Your task to perform on an android device: Set the phone to "Do not disturb". Image 0: 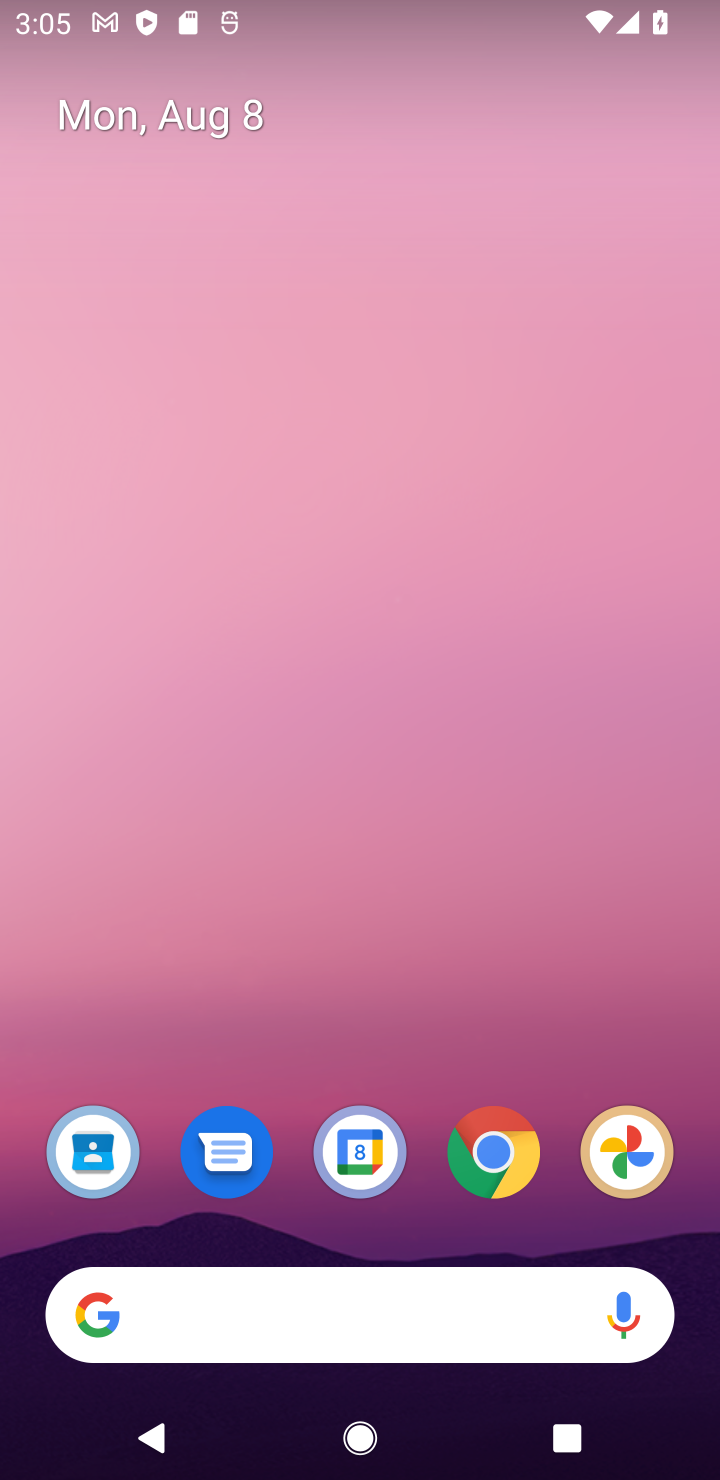
Step 0: drag from (288, 1142) to (512, 7)
Your task to perform on an android device: Set the phone to "Do not disturb". Image 1: 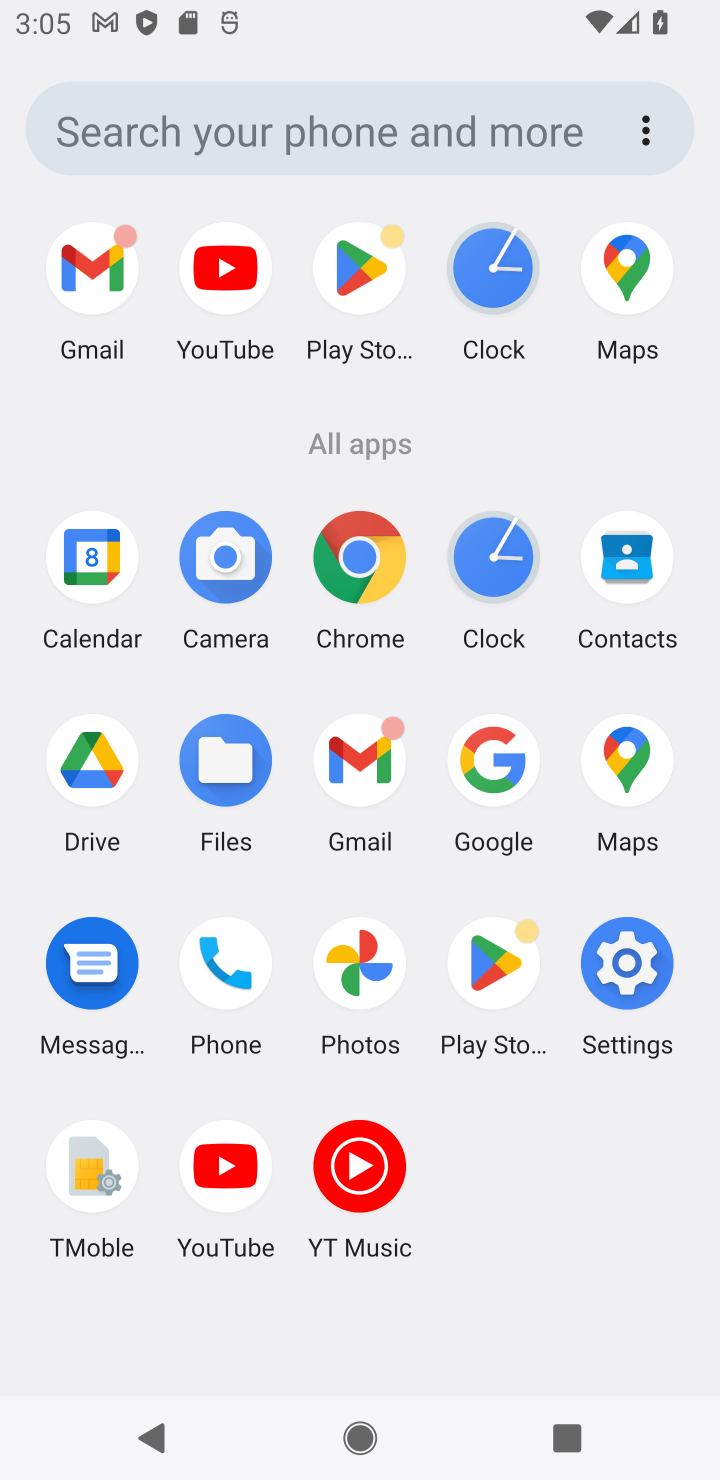
Step 1: click (630, 959)
Your task to perform on an android device: Set the phone to "Do not disturb". Image 2: 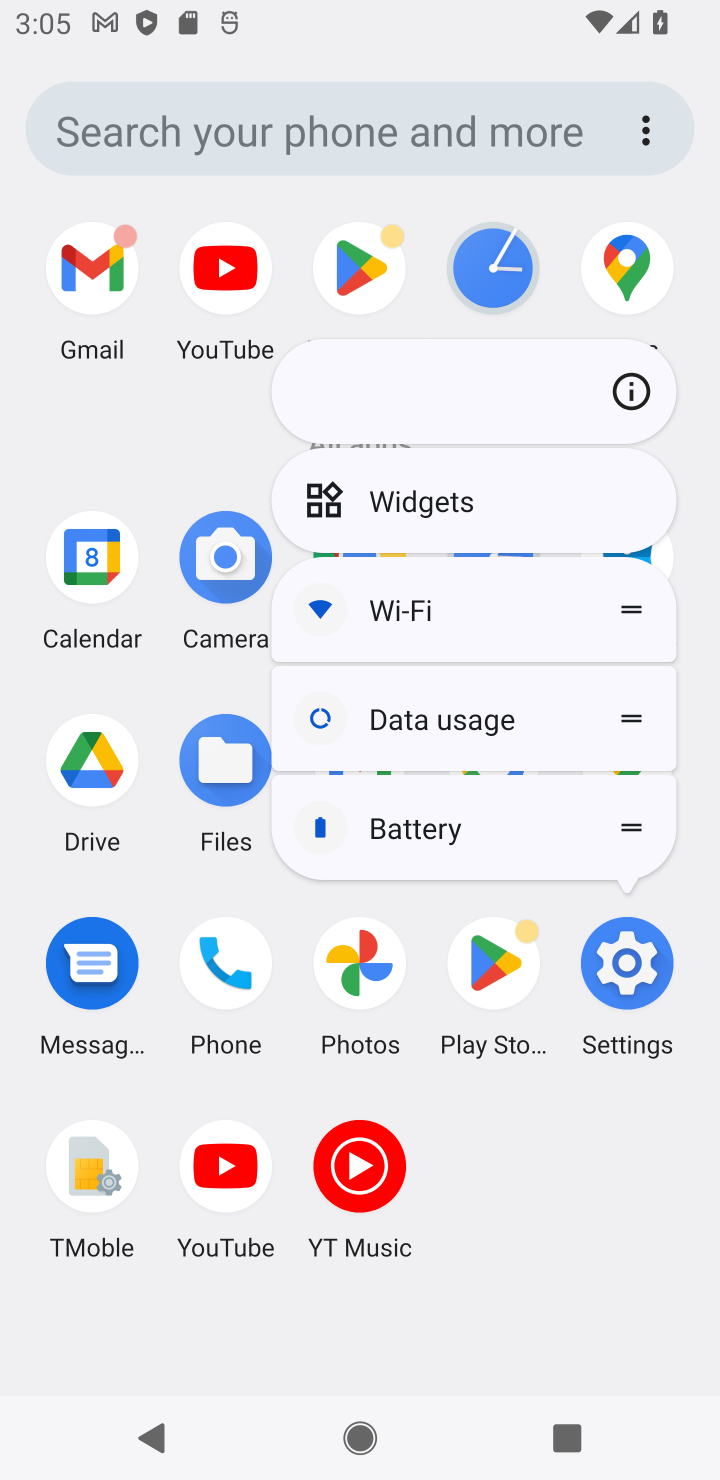
Step 2: click (611, 997)
Your task to perform on an android device: Set the phone to "Do not disturb". Image 3: 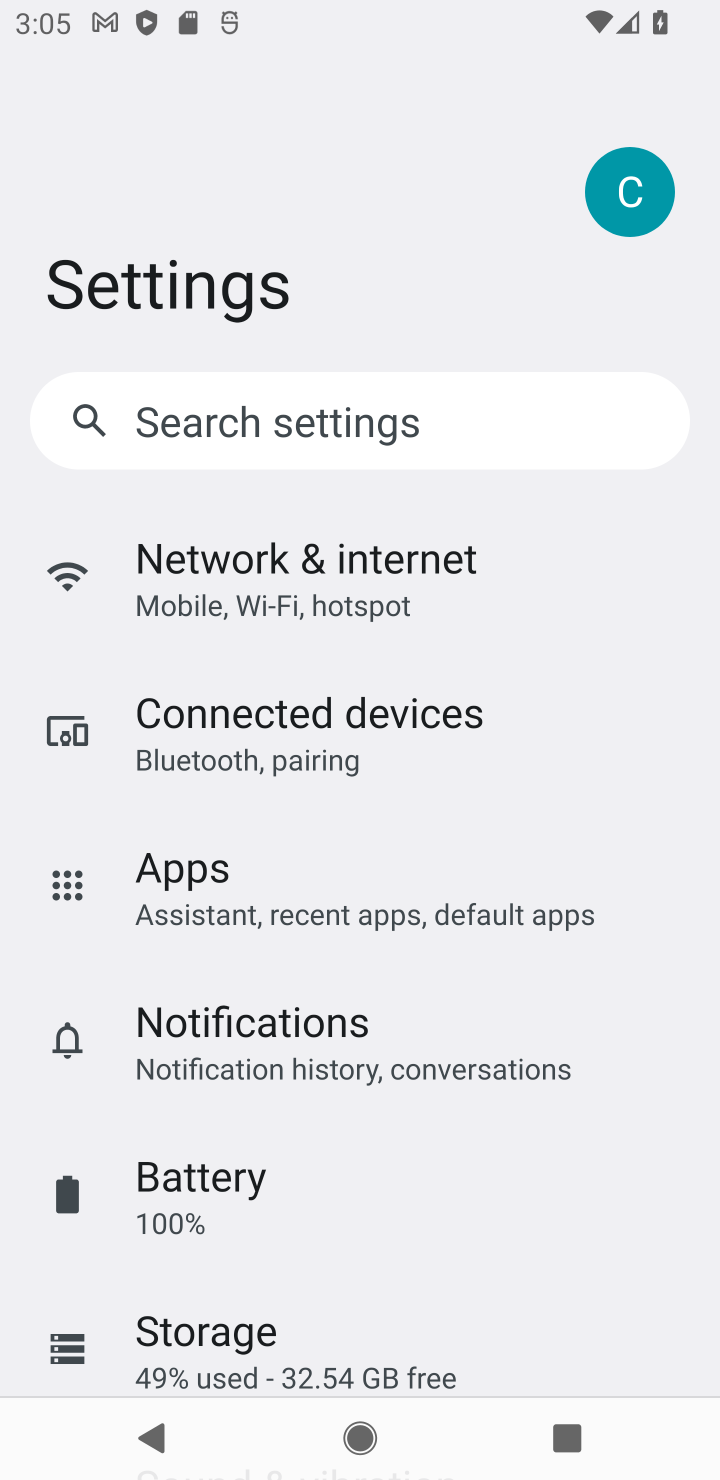
Step 3: drag from (280, 1263) to (270, 546)
Your task to perform on an android device: Set the phone to "Do not disturb". Image 4: 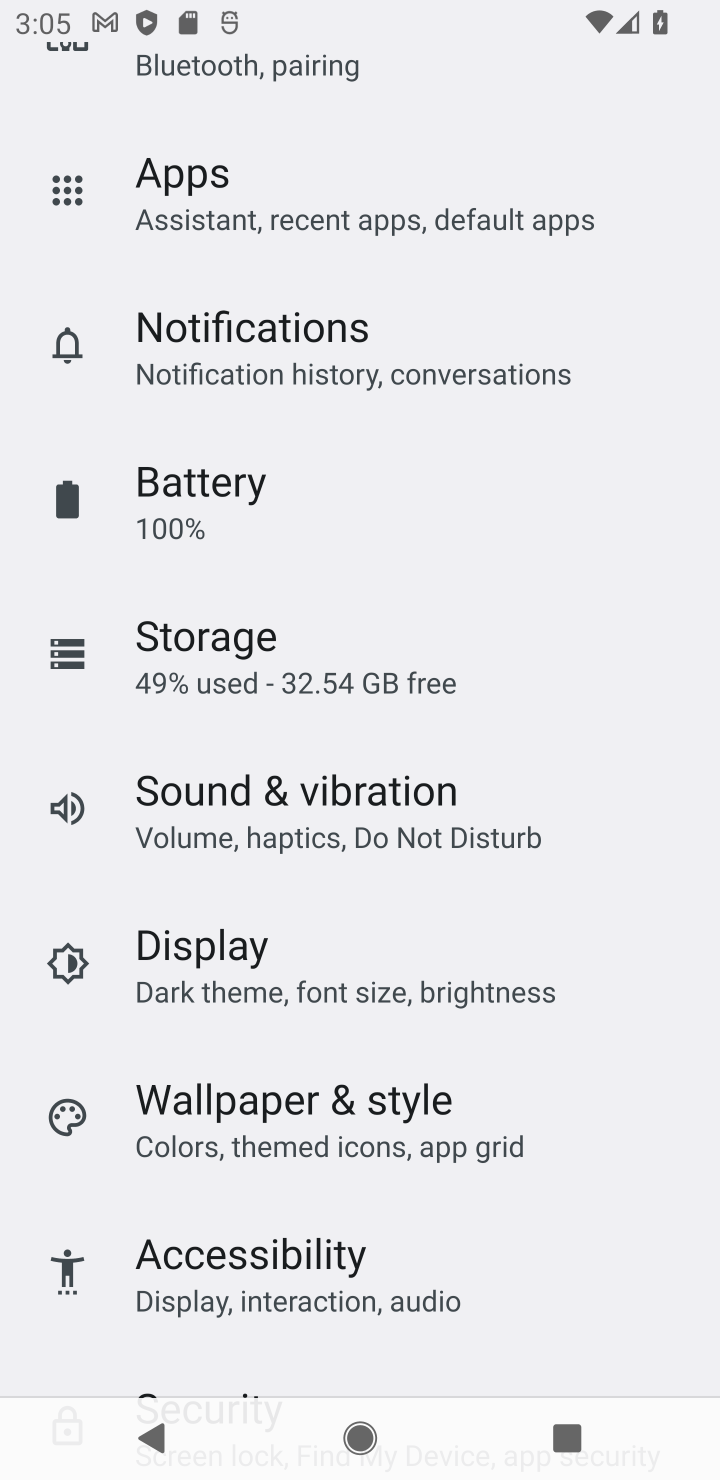
Step 4: click (254, 842)
Your task to perform on an android device: Set the phone to "Do not disturb". Image 5: 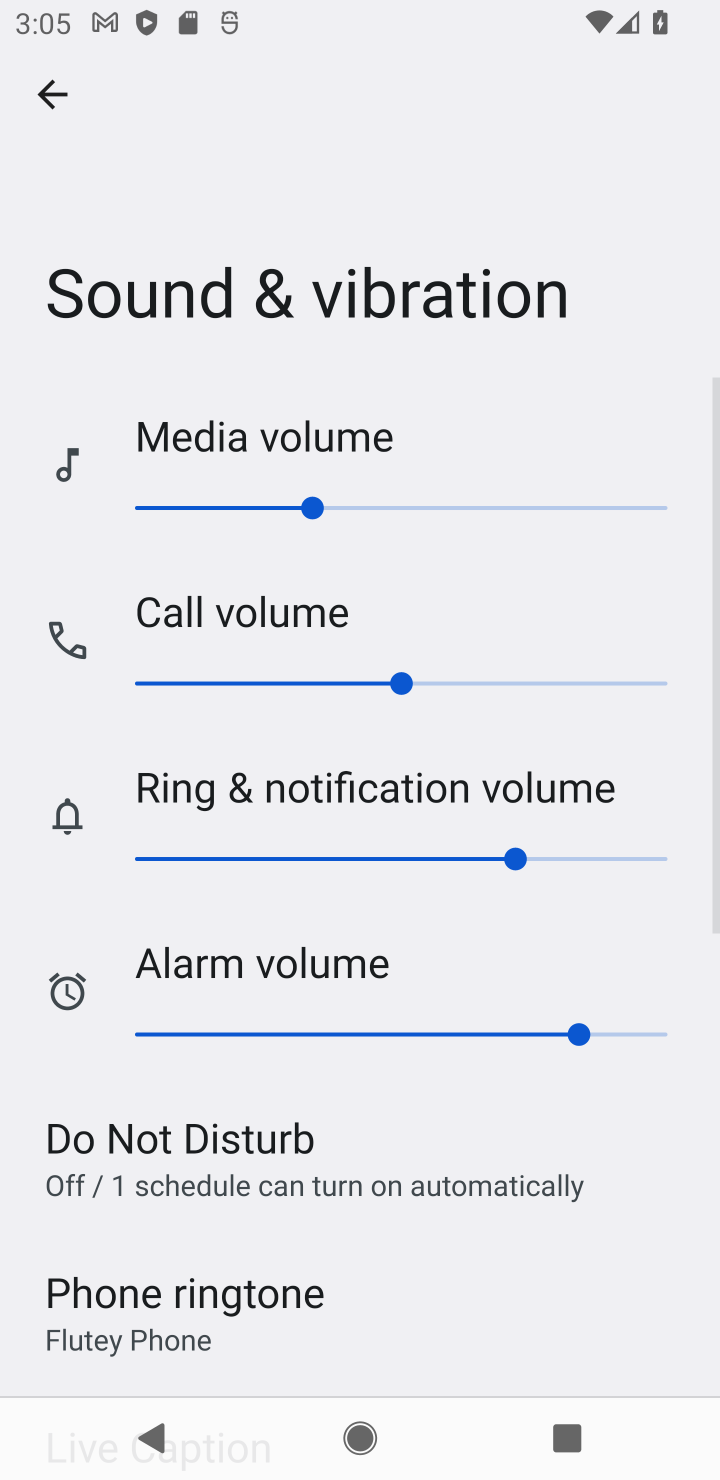
Step 5: drag from (242, 1178) to (249, 815)
Your task to perform on an android device: Set the phone to "Do not disturb". Image 6: 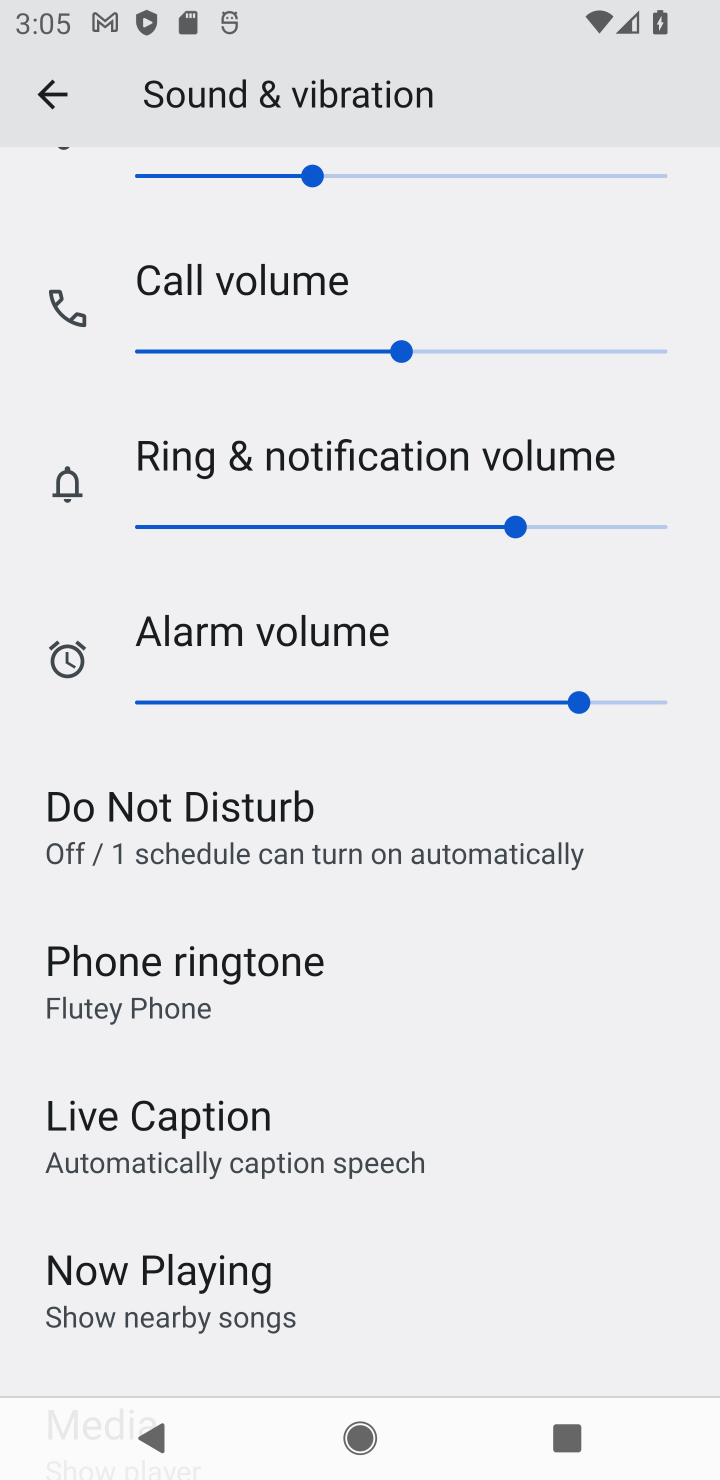
Step 6: click (162, 848)
Your task to perform on an android device: Set the phone to "Do not disturb". Image 7: 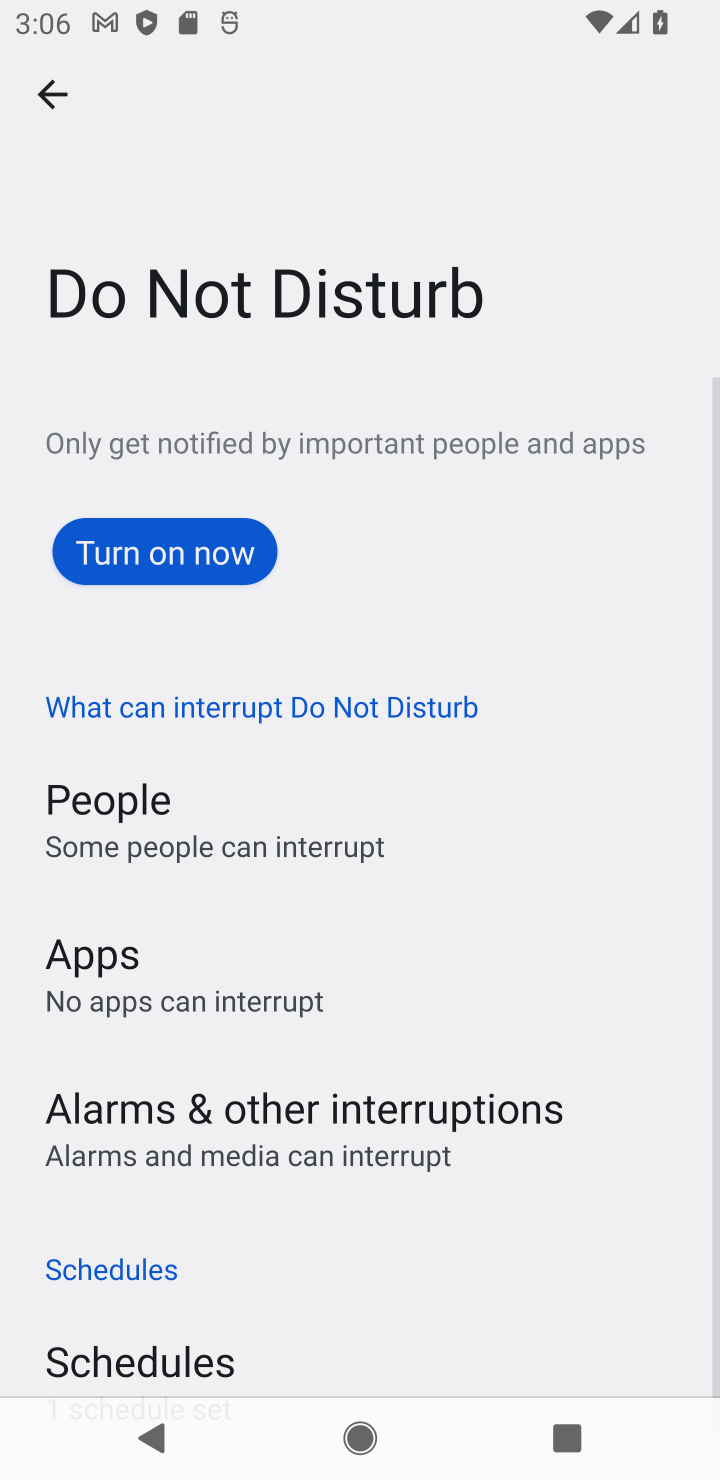
Step 7: click (183, 550)
Your task to perform on an android device: Set the phone to "Do not disturb". Image 8: 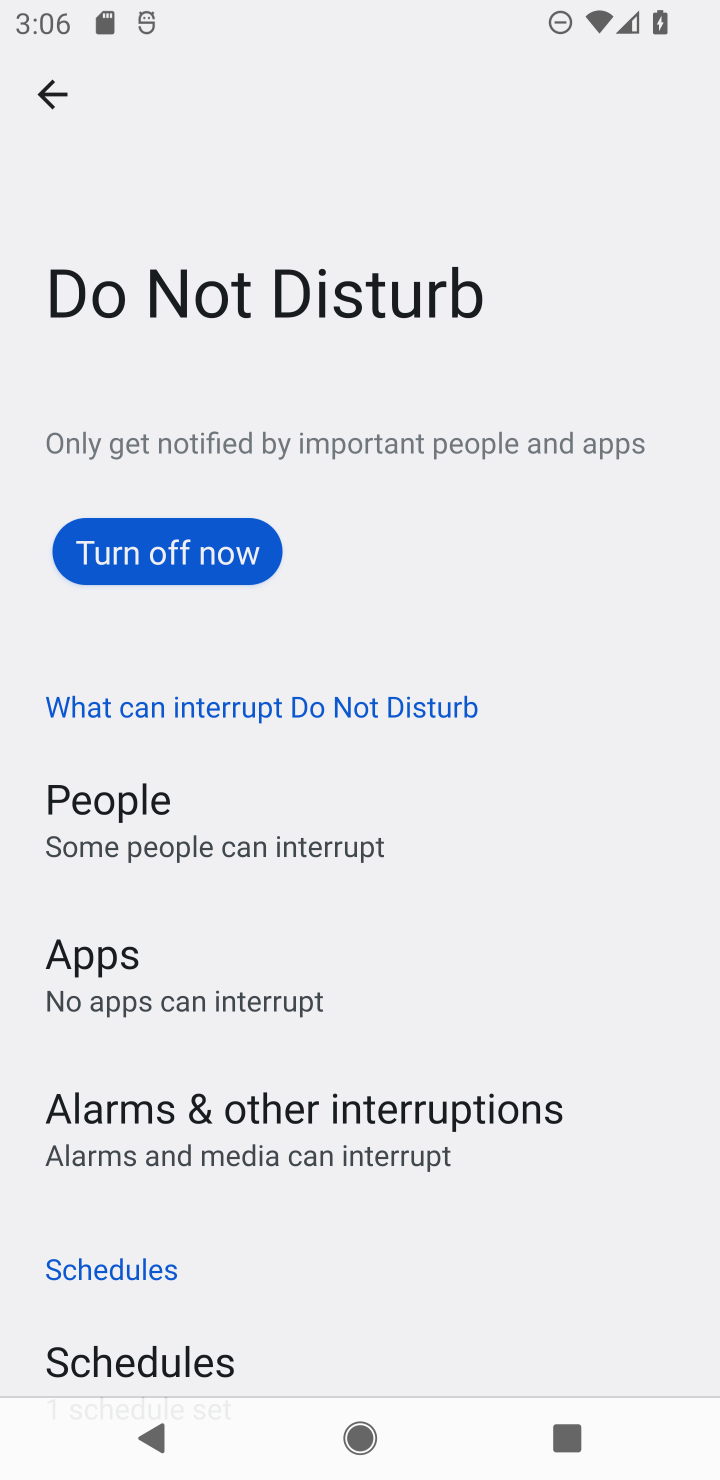
Step 8: task complete